Your task to perform on an android device: turn off location history Image 0: 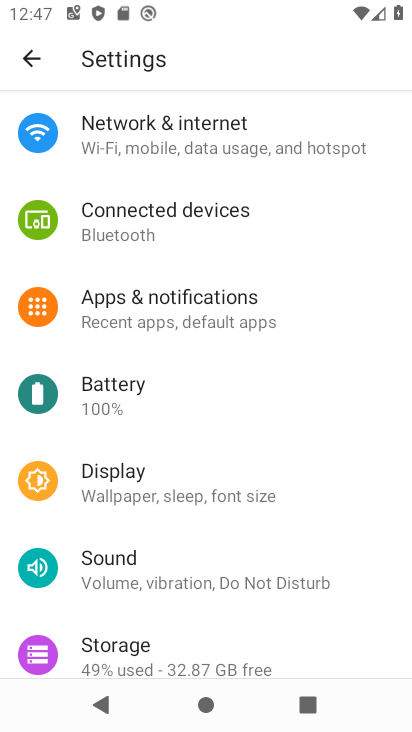
Step 0: drag from (189, 573) to (207, 241)
Your task to perform on an android device: turn off location history Image 1: 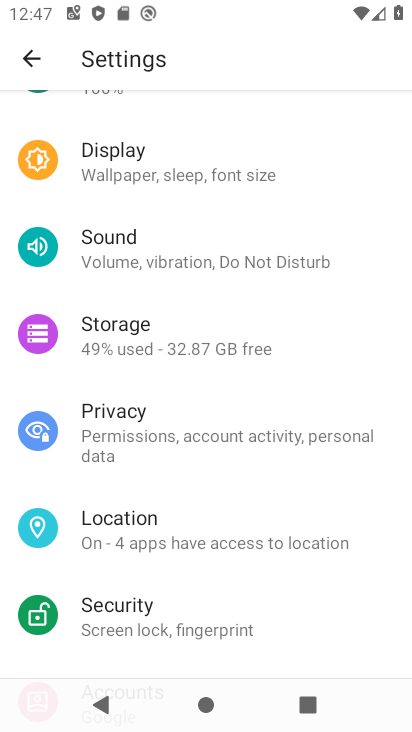
Step 1: click (214, 533)
Your task to perform on an android device: turn off location history Image 2: 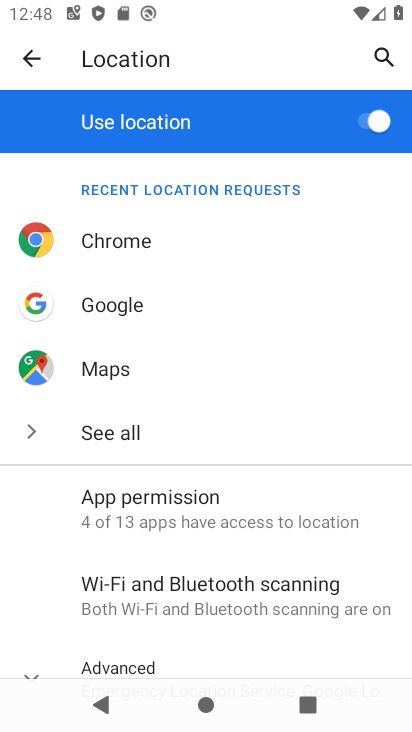
Step 2: drag from (292, 614) to (317, 396)
Your task to perform on an android device: turn off location history Image 3: 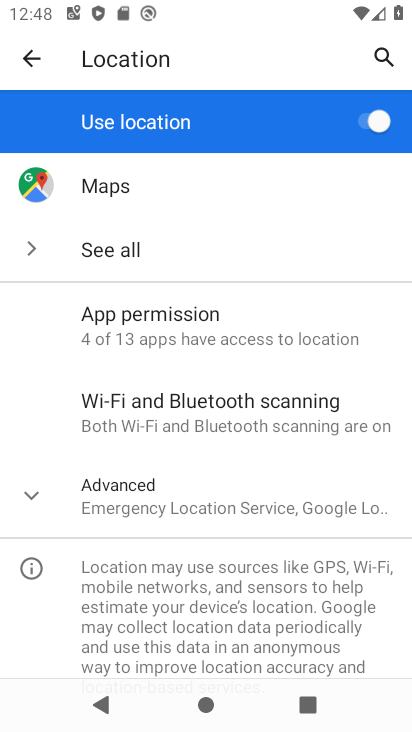
Step 3: click (197, 496)
Your task to perform on an android device: turn off location history Image 4: 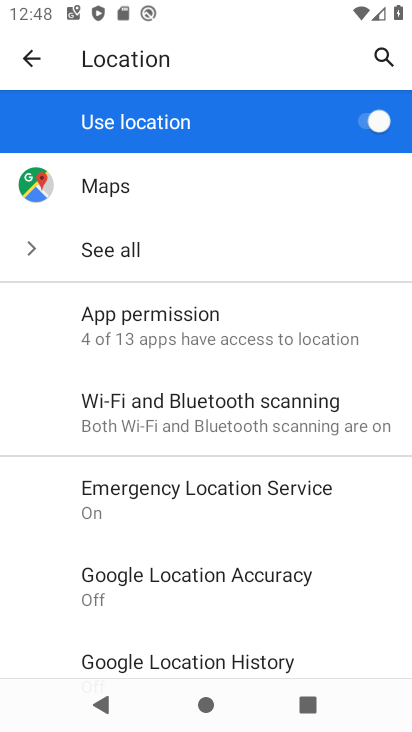
Step 4: drag from (279, 587) to (285, 438)
Your task to perform on an android device: turn off location history Image 5: 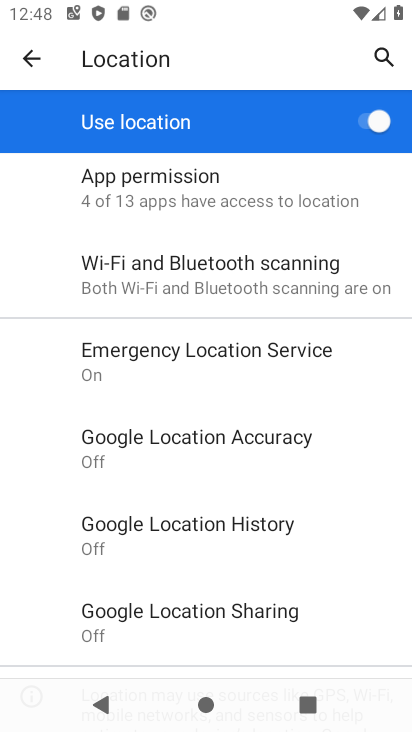
Step 5: click (285, 525)
Your task to perform on an android device: turn off location history Image 6: 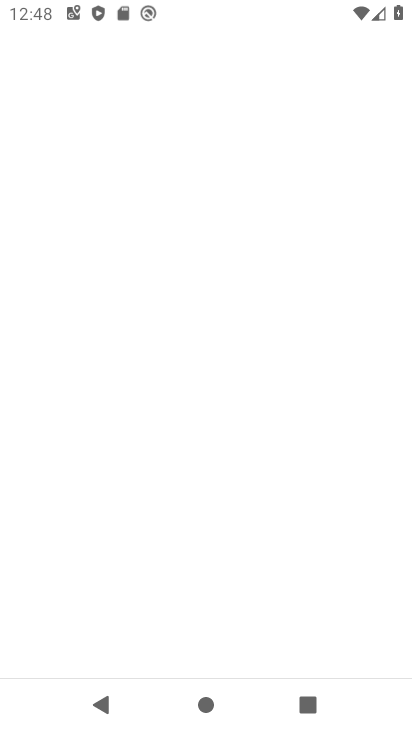
Step 6: task complete